Your task to perform on an android device: turn on priority inbox in the gmail app Image 0: 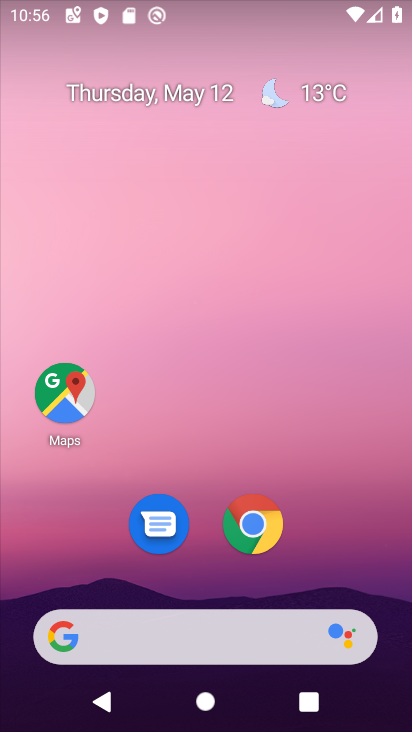
Step 0: drag from (330, 528) to (342, 15)
Your task to perform on an android device: turn on priority inbox in the gmail app Image 1: 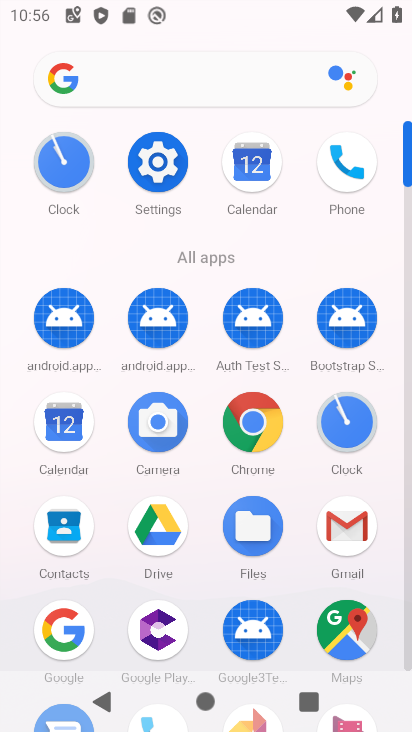
Step 1: click (340, 531)
Your task to perform on an android device: turn on priority inbox in the gmail app Image 2: 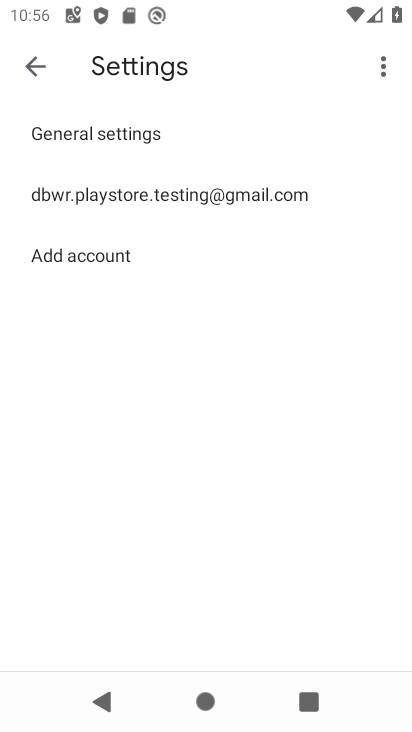
Step 2: click (29, 51)
Your task to perform on an android device: turn on priority inbox in the gmail app Image 3: 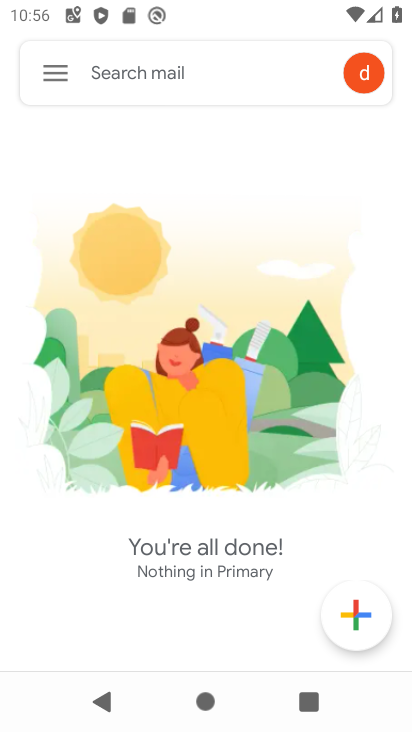
Step 3: click (61, 78)
Your task to perform on an android device: turn on priority inbox in the gmail app Image 4: 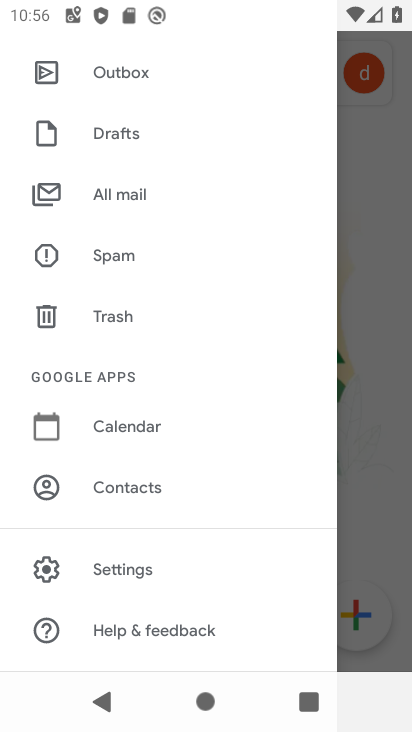
Step 4: click (110, 555)
Your task to perform on an android device: turn on priority inbox in the gmail app Image 5: 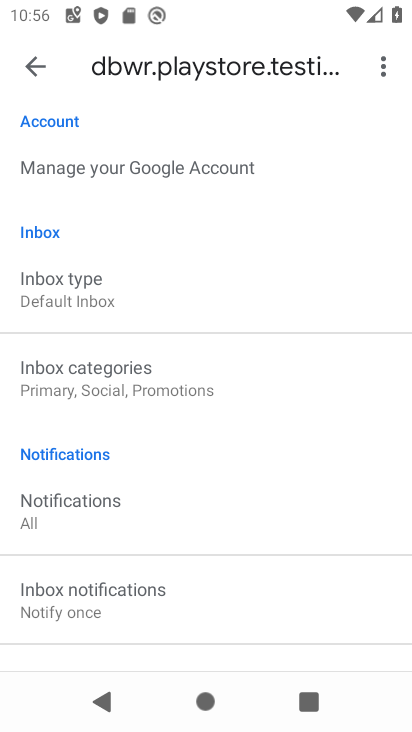
Step 5: click (87, 286)
Your task to perform on an android device: turn on priority inbox in the gmail app Image 6: 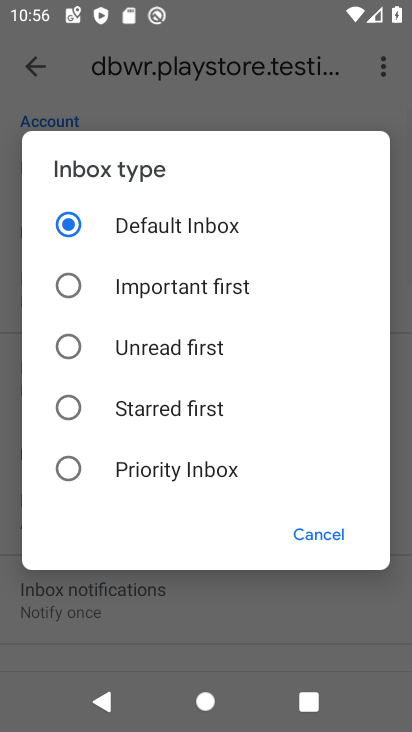
Step 6: click (67, 462)
Your task to perform on an android device: turn on priority inbox in the gmail app Image 7: 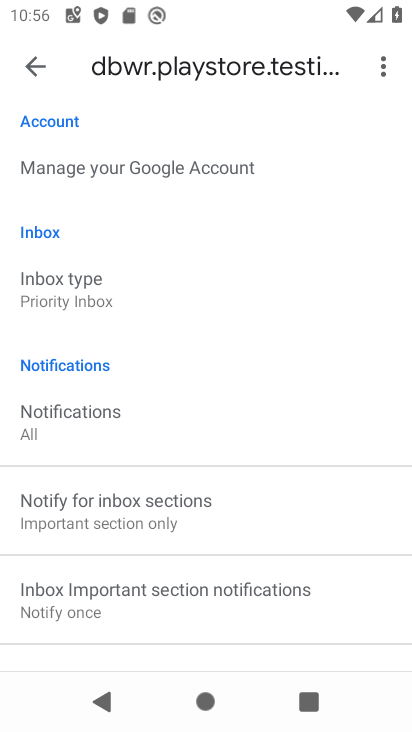
Step 7: task complete